Your task to perform on an android device: Open CNN.com Image 0: 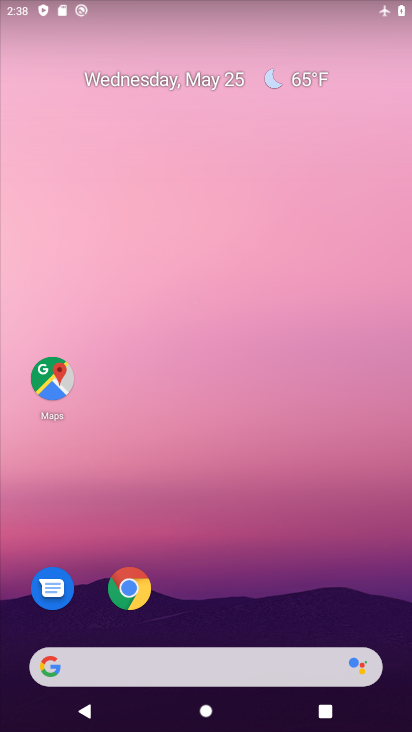
Step 0: click (132, 581)
Your task to perform on an android device: Open CNN.com Image 1: 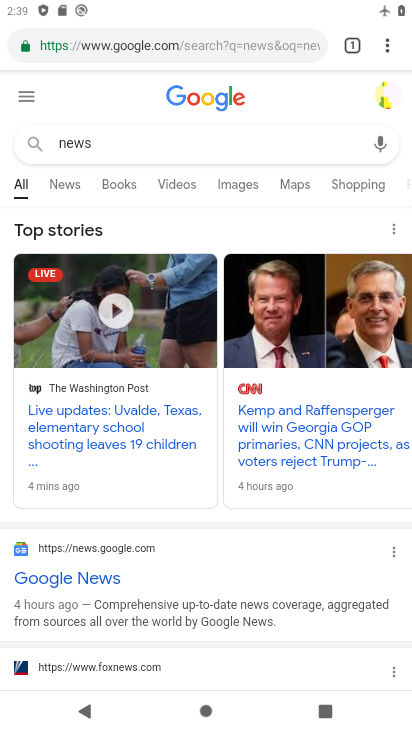
Step 1: click (156, 45)
Your task to perform on an android device: Open CNN.com Image 2: 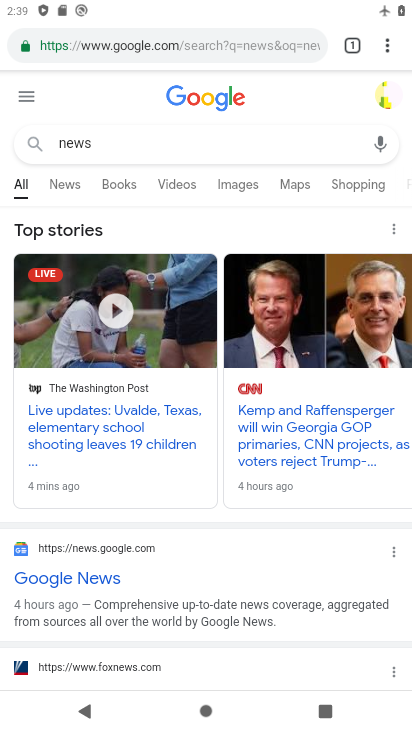
Step 2: type "CNN.com"
Your task to perform on an android device: Open CNN.com Image 3: 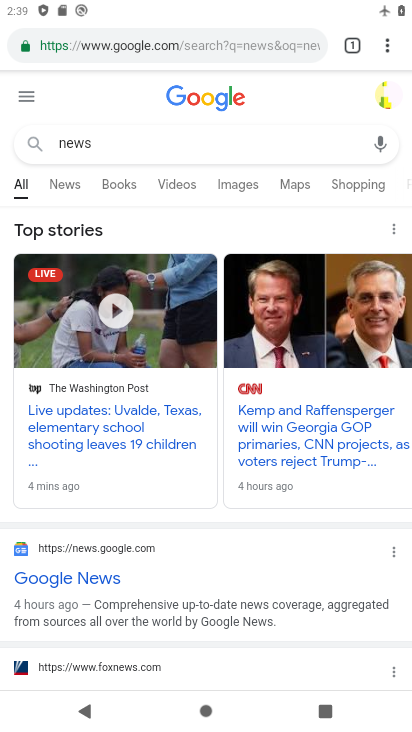
Step 3: click (124, 50)
Your task to perform on an android device: Open CNN.com Image 4: 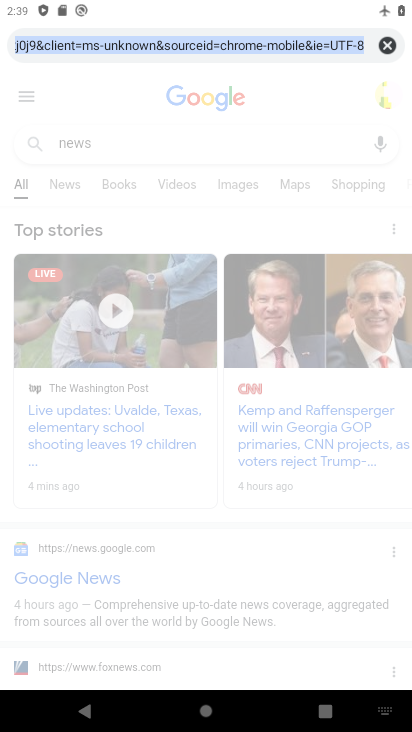
Step 4: type "CNN.com"
Your task to perform on an android device: Open CNN.com Image 5: 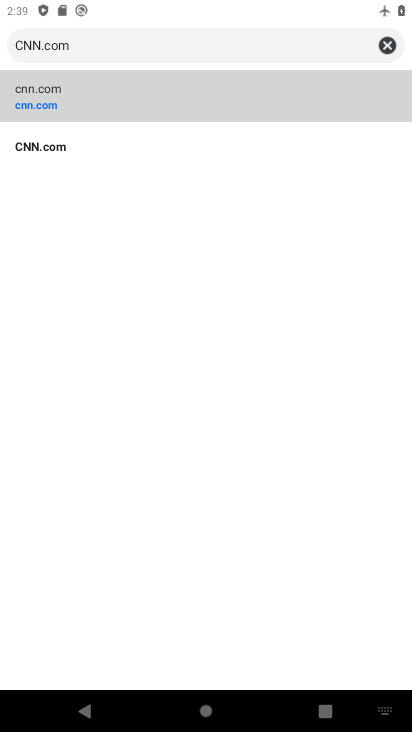
Step 5: click (70, 110)
Your task to perform on an android device: Open CNN.com Image 6: 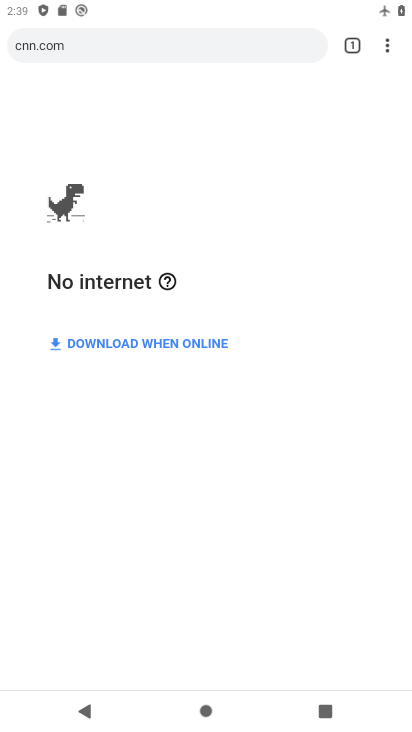
Step 6: task complete